Your task to perform on an android device: change your default location settings in chrome Image 0: 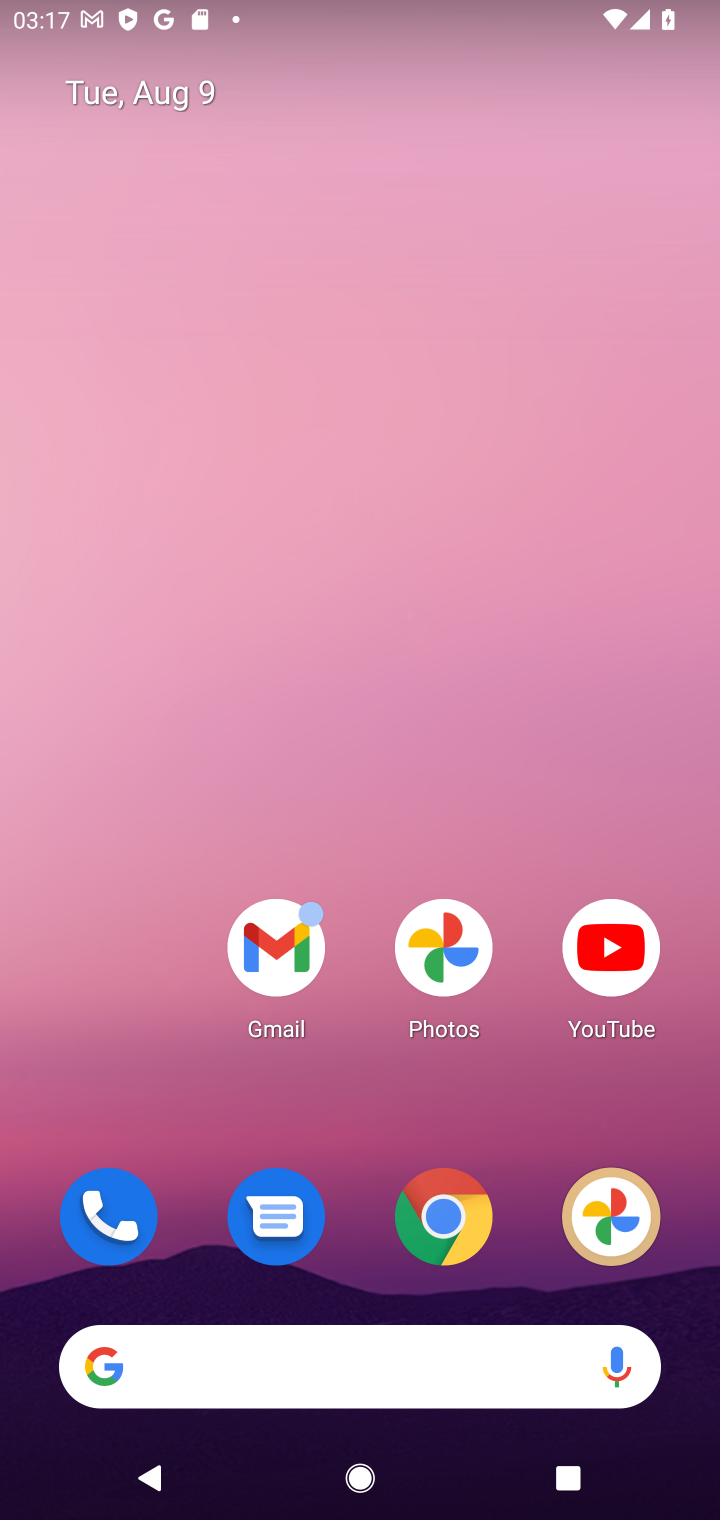
Step 0: click (461, 1218)
Your task to perform on an android device: change your default location settings in chrome Image 1: 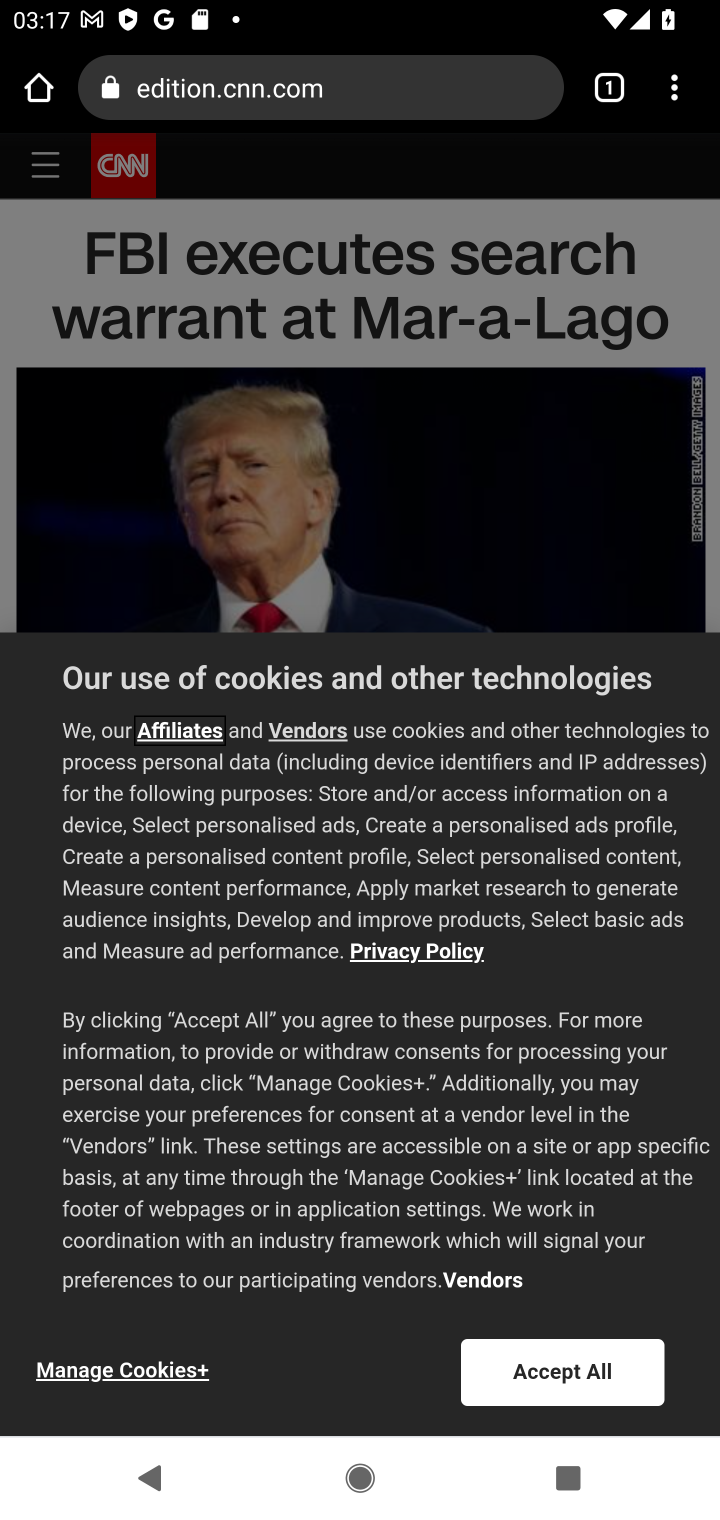
Step 1: click (675, 89)
Your task to perform on an android device: change your default location settings in chrome Image 2: 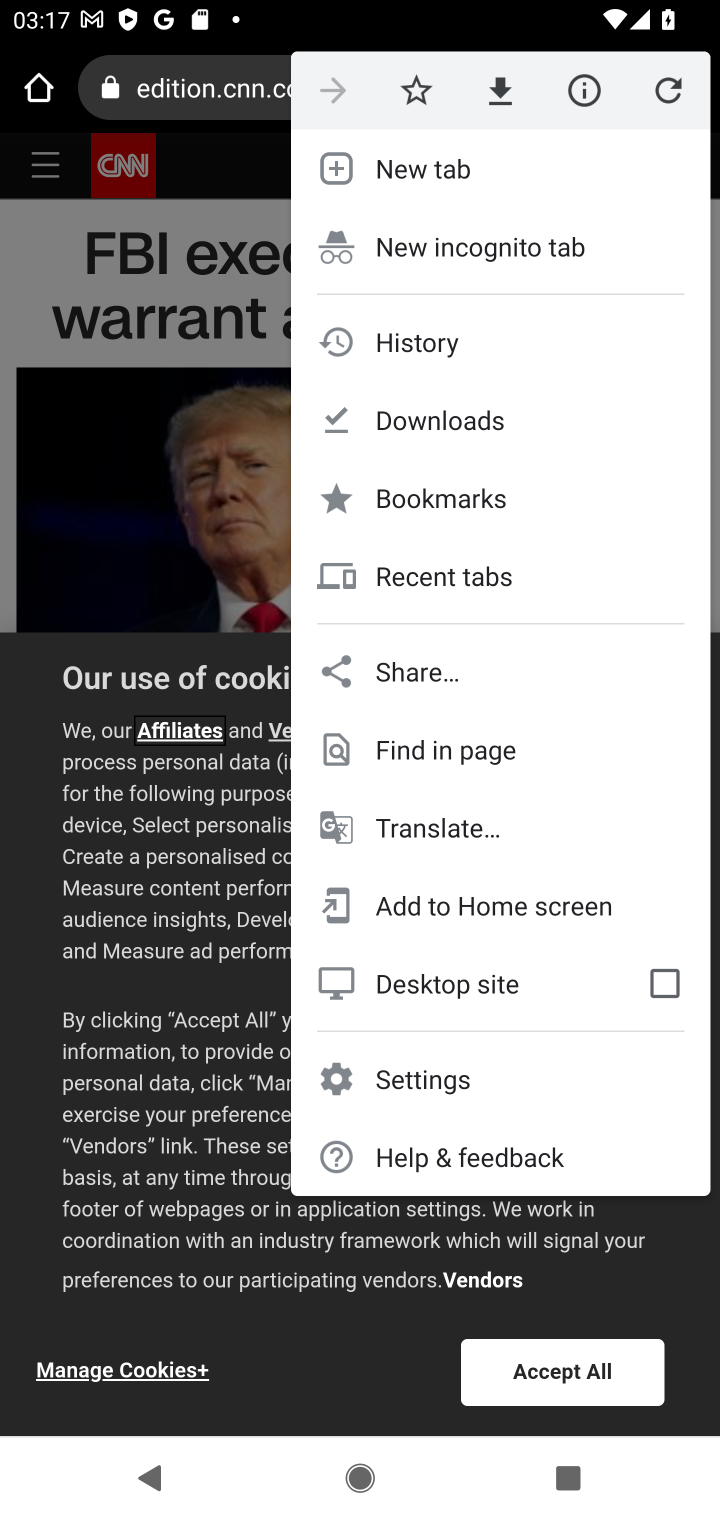
Step 2: click (431, 1057)
Your task to perform on an android device: change your default location settings in chrome Image 3: 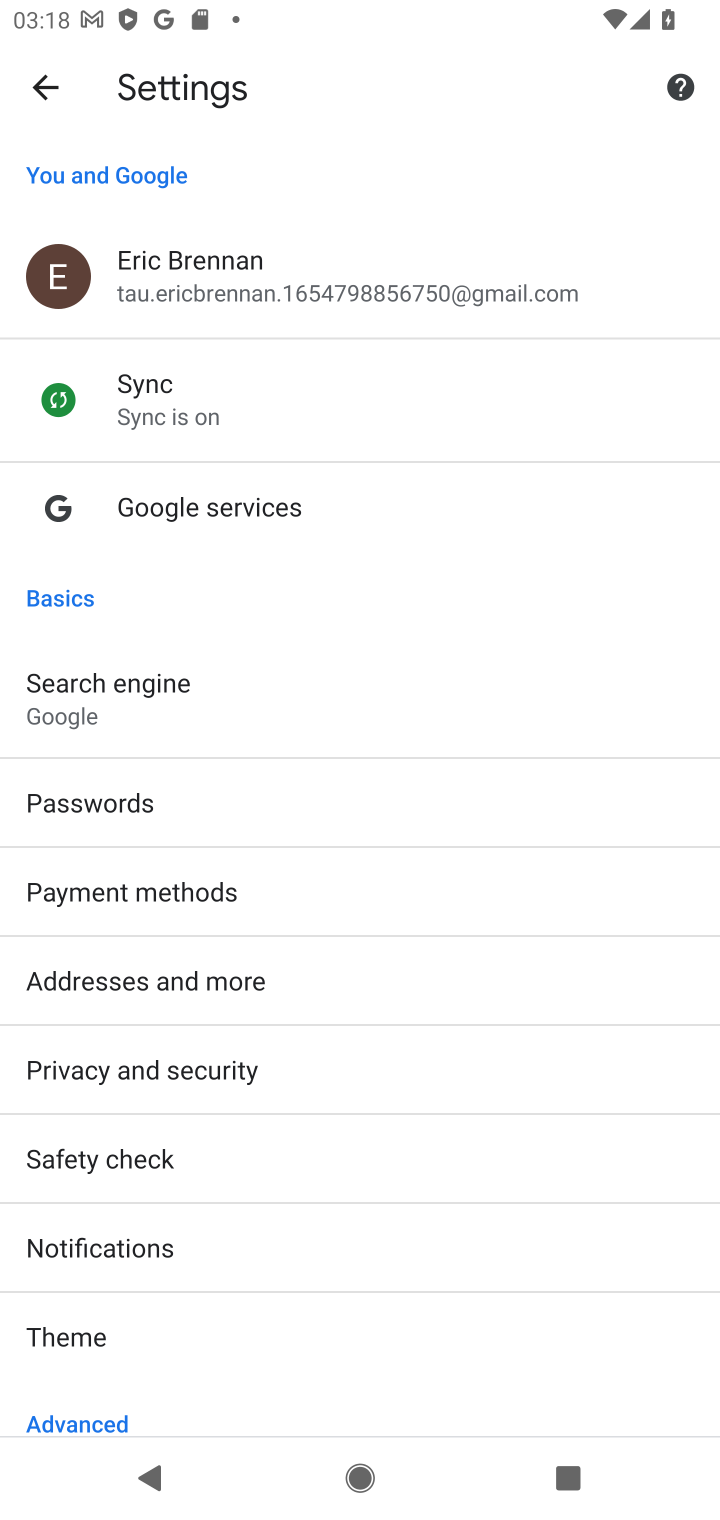
Step 3: drag from (164, 1364) to (48, 528)
Your task to perform on an android device: change your default location settings in chrome Image 4: 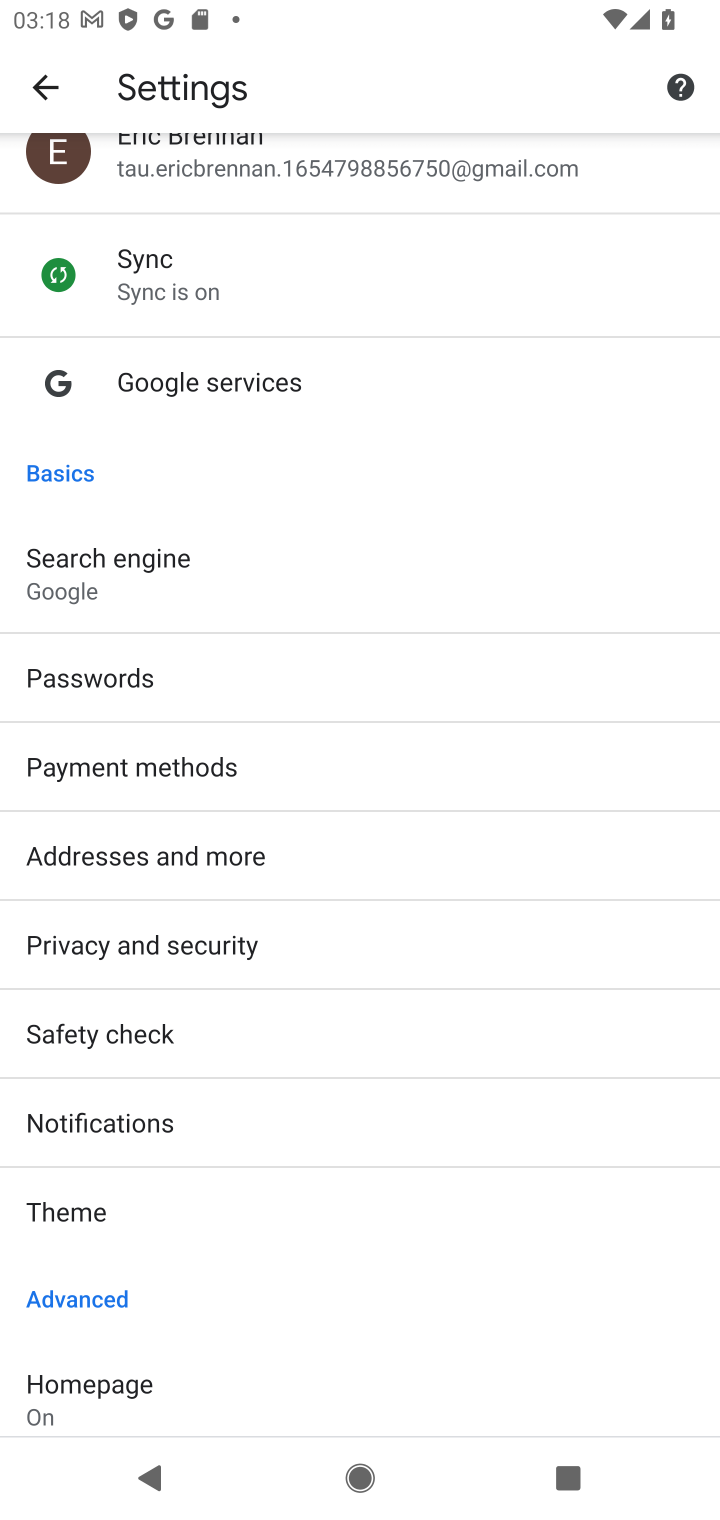
Step 4: drag from (358, 612) to (433, 6)
Your task to perform on an android device: change your default location settings in chrome Image 5: 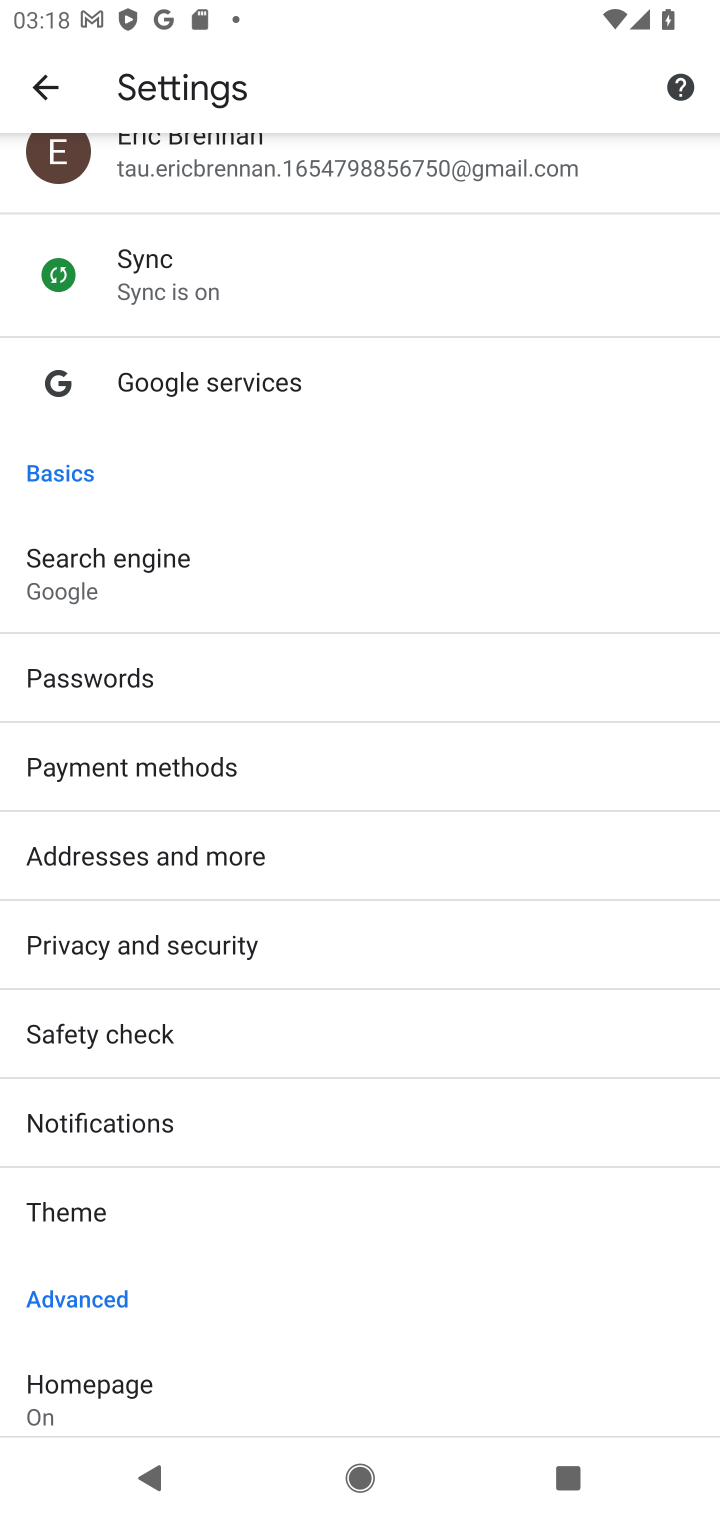
Step 5: drag from (426, 1232) to (423, 445)
Your task to perform on an android device: change your default location settings in chrome Image 6: 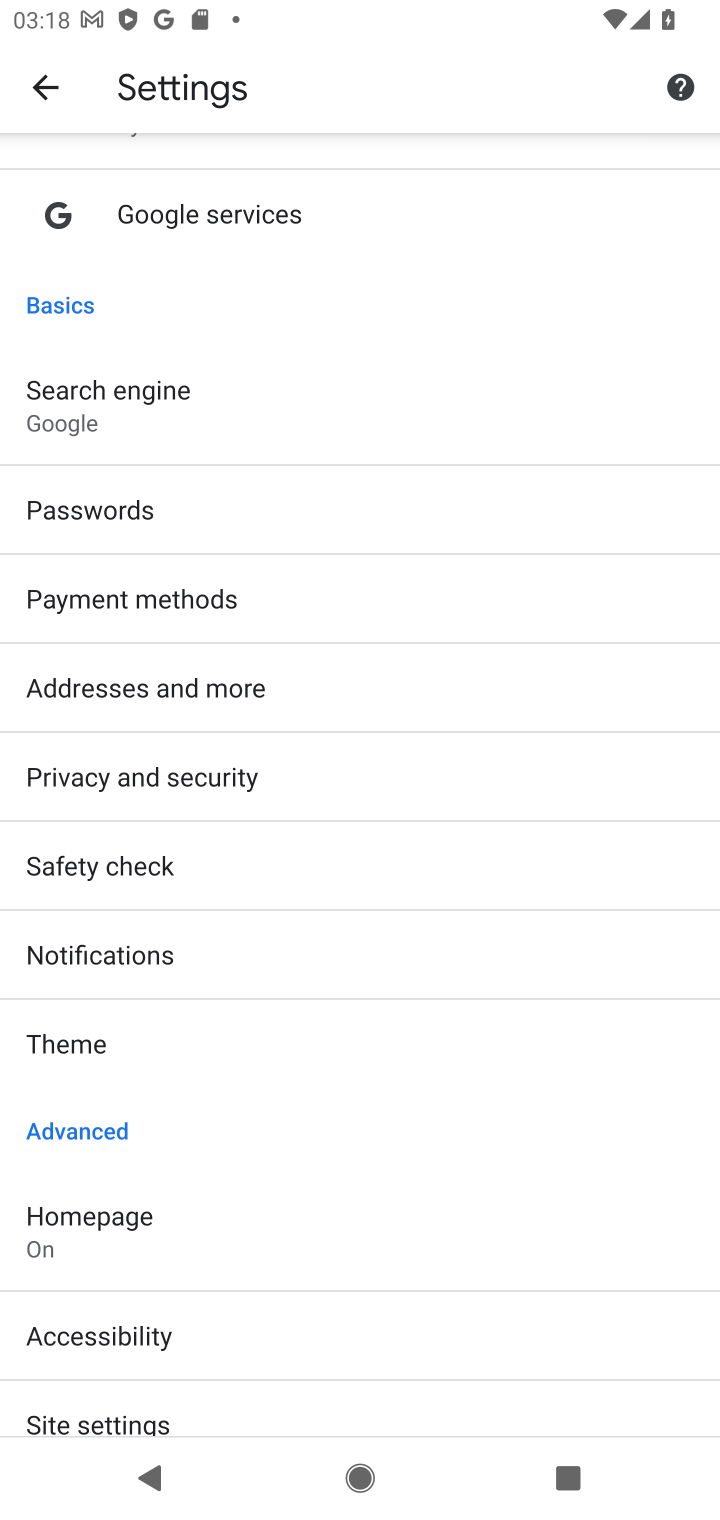
Step 6: click (353, 1413)
Your task to perform on an android device: change your default location settings in chrome Image 7: 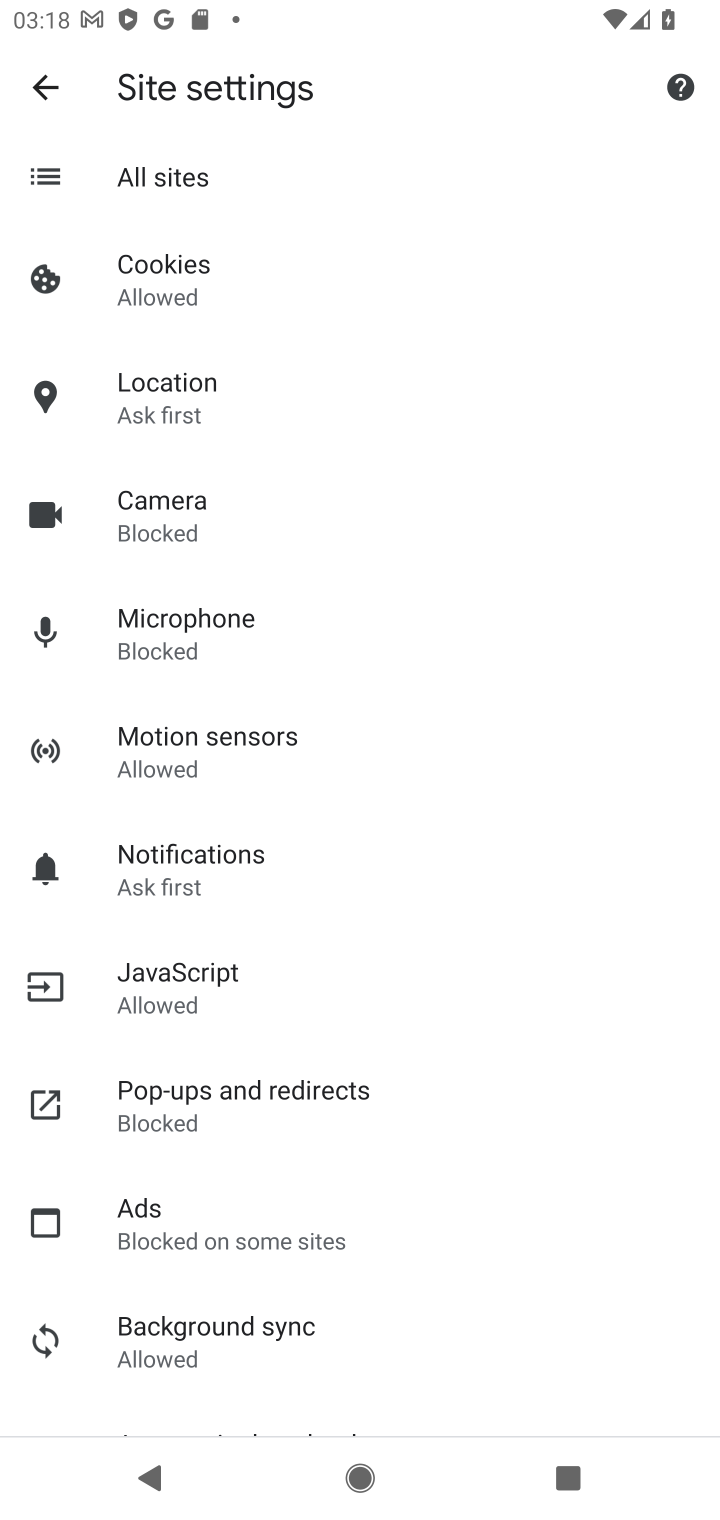
Step 7: click (231, 376)
Your task to perform on an android device: change your default location settings in chrome Image 8: 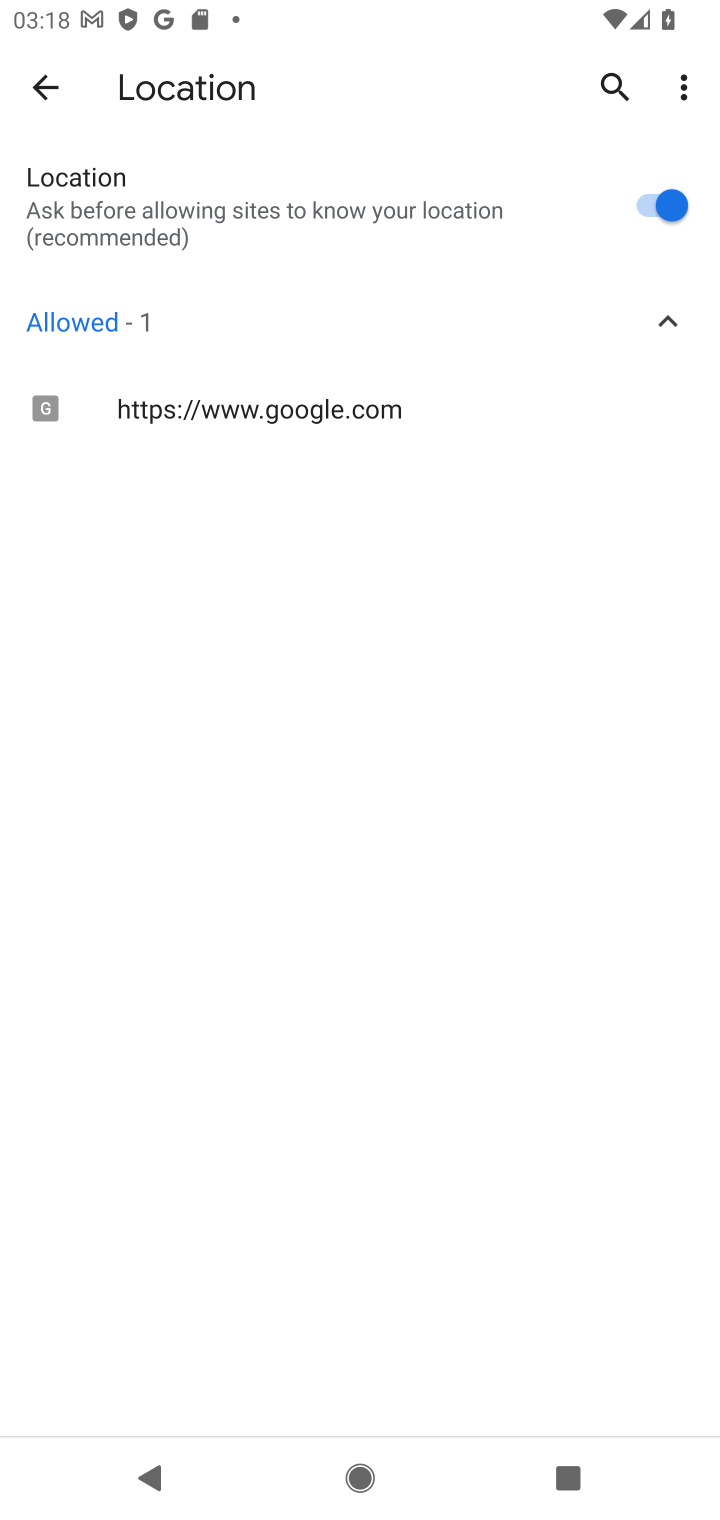
Step 8: click (703, 228)
Your task to perform on an android device: change your default location settings in chrome Image 9: 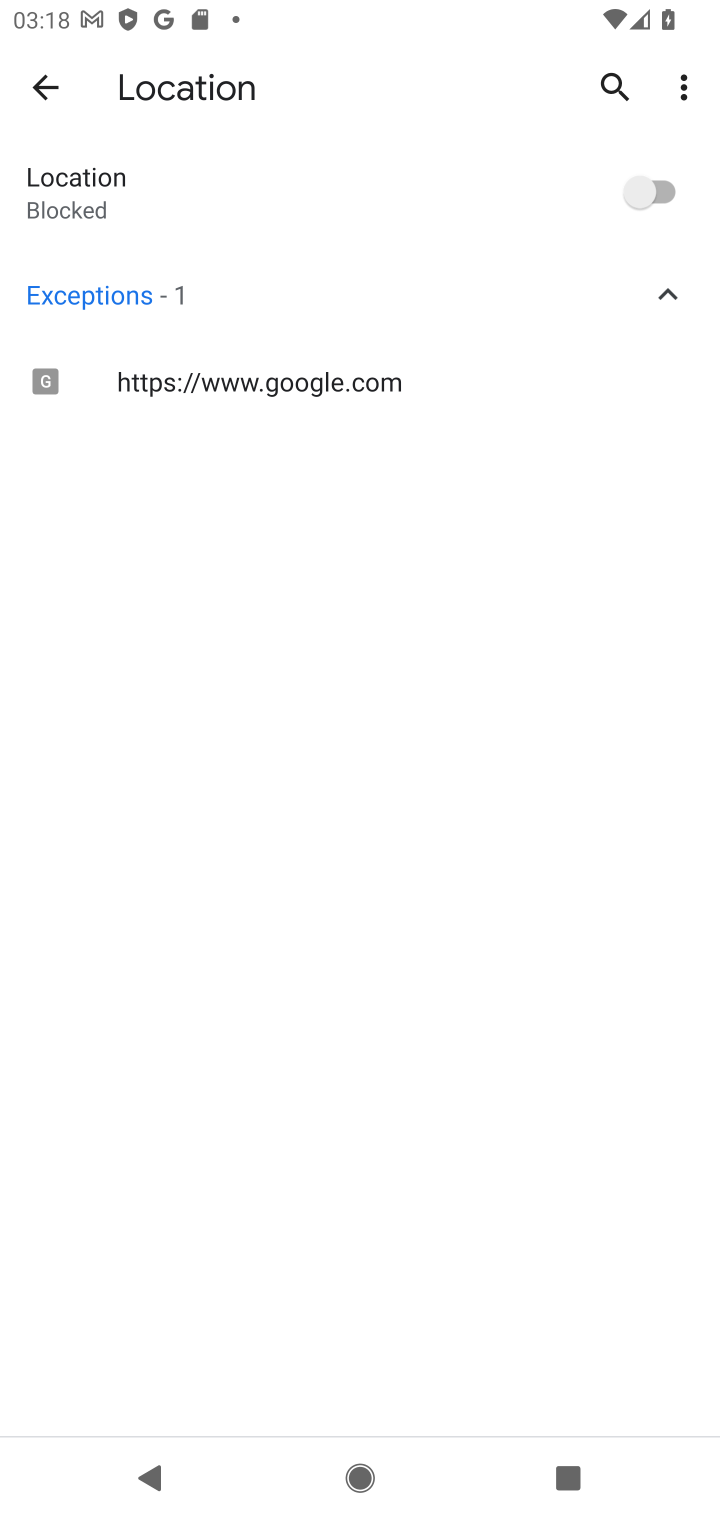
Step 9: task complete